Your task to perform on an android device: Go to eBay Image 0: 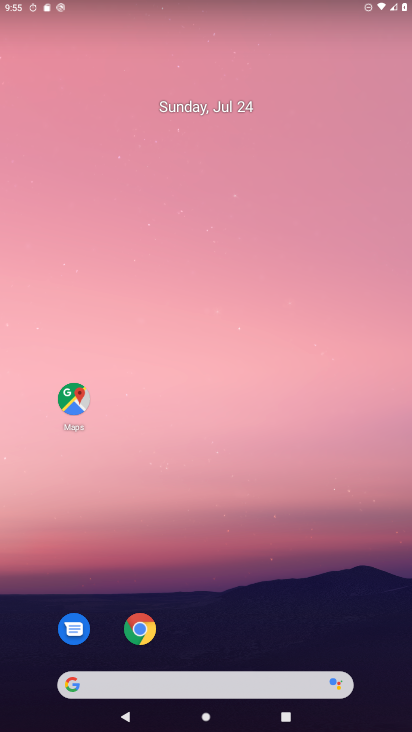
Step 0: drag from (184, 647) to (304, 83)
Your task to perform on an android device: Go to eBay Image 1: 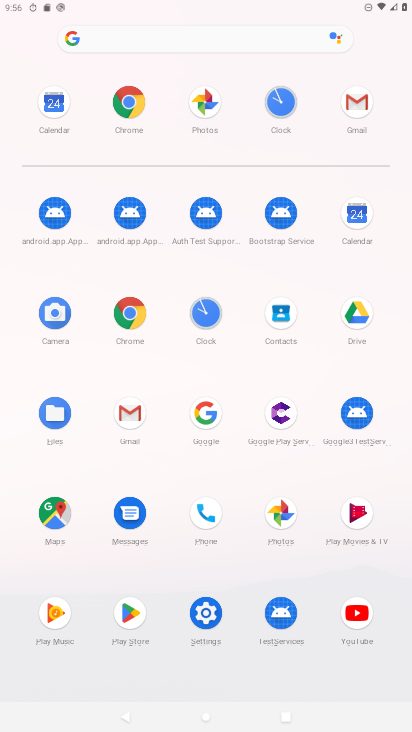
Step 1: click (119, 137)
Your task to perform on an android device: Go to eBay Image 2: 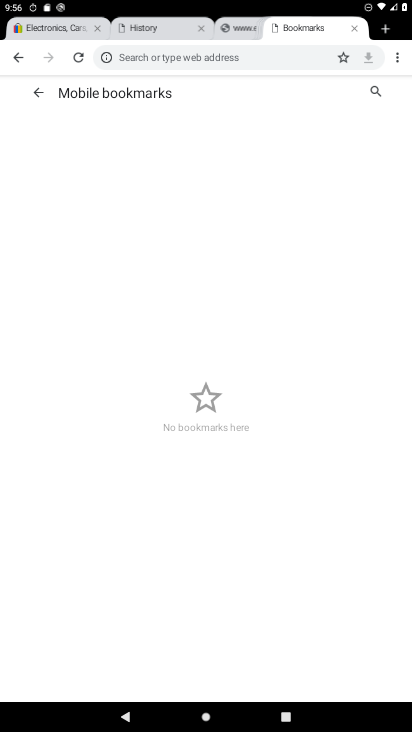
Step 2: click (54, 30)
Your task to perform on an android device: Go to eBay Image 3: 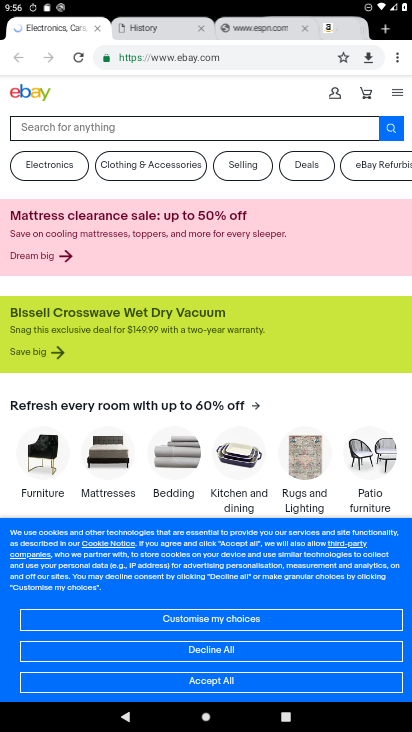
Step 3: task complete